Your task to perform on an android device: check battery use Image 0: 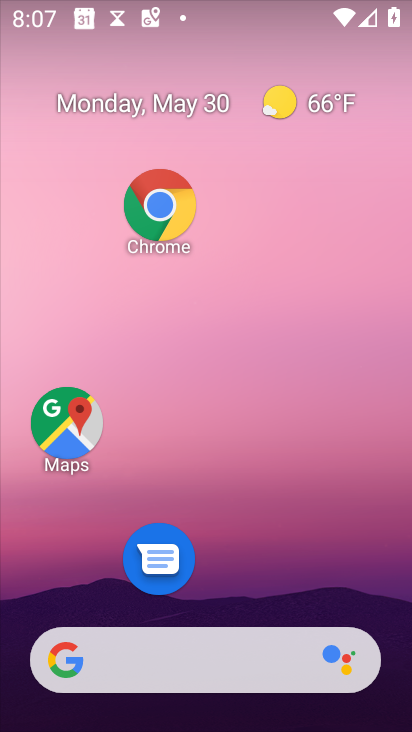
Step 0: drag from (209, 430) to (177, 55)
Your task to perform on an android device: check battery use Image 1: 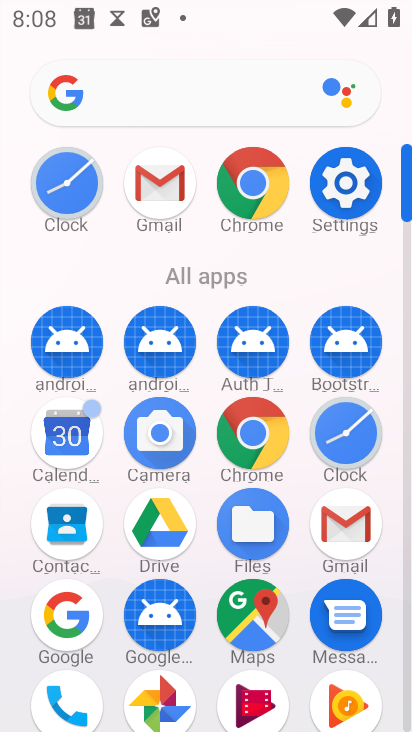
Step 1: click (345, 212)
Your task to perform on an android device: check battery use Image 2: 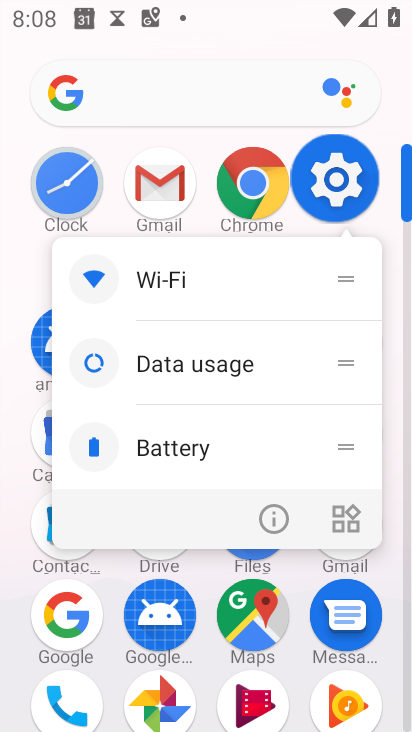
Step 2: click (335, 207)
Your task to perform on an android device: check battery use Image 3: 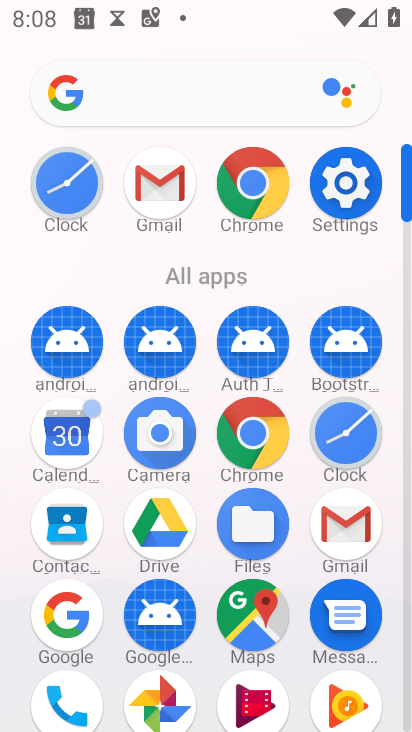
Step 3: click (335, 207)
Your task to perform on an android device: check battery use Image 4: 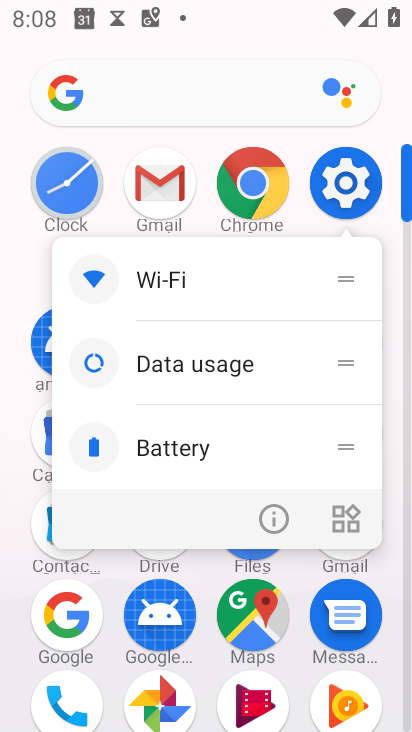
Step 4: click (340, 194)
Your task to perform on an android device: check battery use Image 5: 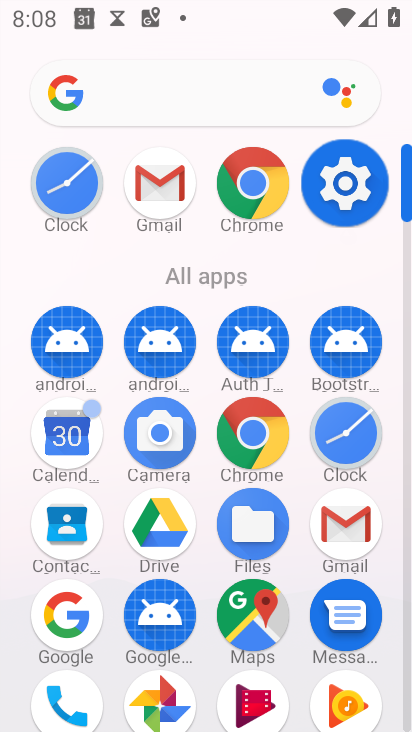
Step 5: click (340, 192)
Your task to perform on an android device: check battery use Image 6: 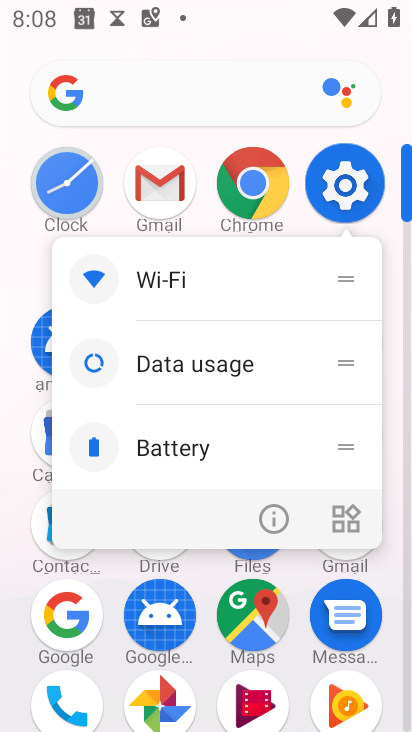
Step 6: click (339, 192)
Your task to perform on an android device: check battery use Image 7: 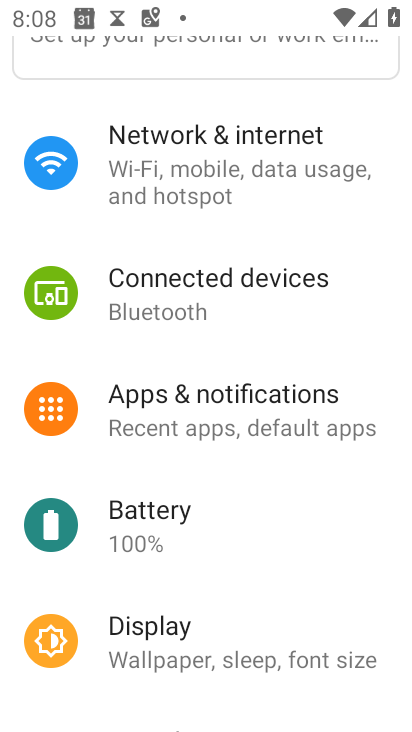
Step 7: click (147, 506)
Your task to perform on an android device: check battery use Image 8: 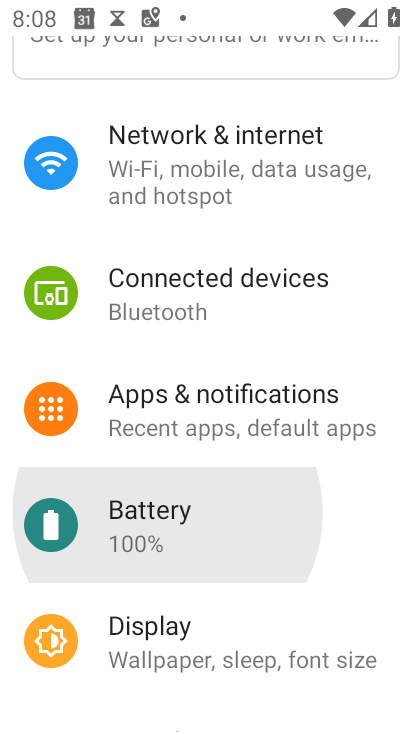
Step 8: click (139, 519)
Your task to perform on an android device: check battery use Image 9: 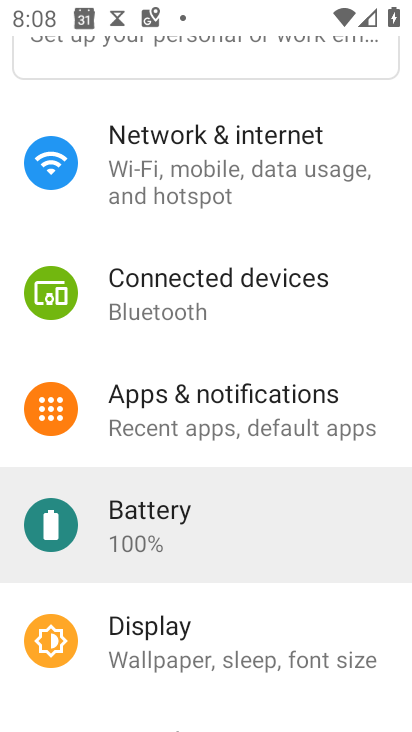
Step 9: click (139, 519)
Your task to perform on an android device: check battery use Image 10: 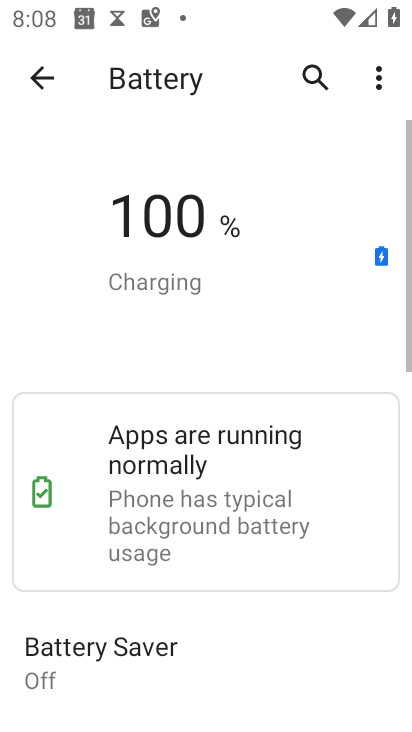
Step 10: click (130, 515)
Your task to perform on an android device: check battery use Image 11: 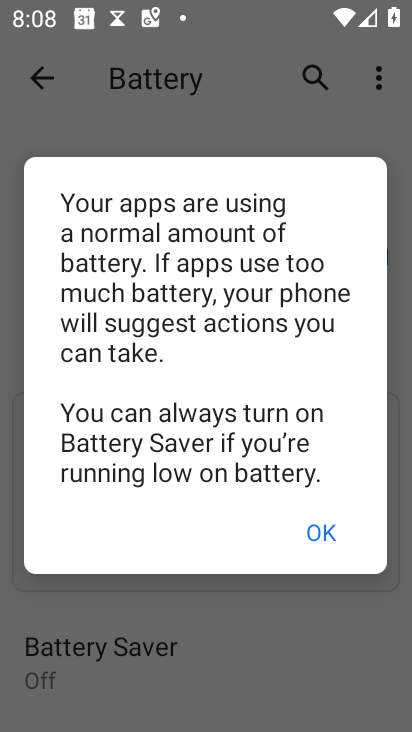
Step 11: click (321, 511)
Your task to perform on an android device: check battery use Image 12: 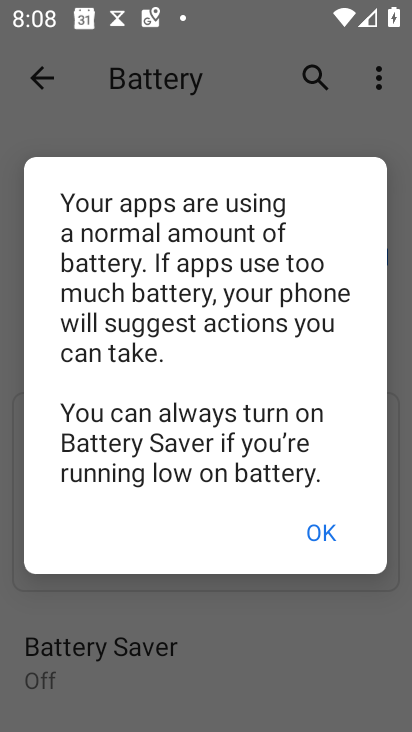
Step 12: click (323, 521)
Your task to perform on an android device: check battery use Image 13: 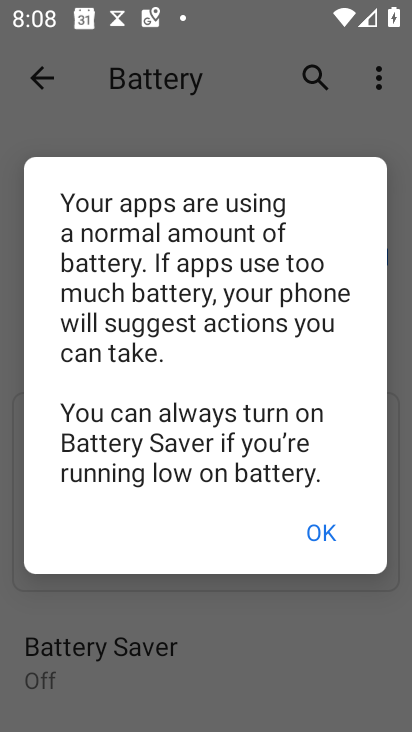
Step 13: task complete